Your task to perform on an android device: open app "Facebook Lite" (install if not already installed), go to login, and select forgot password Image 0: 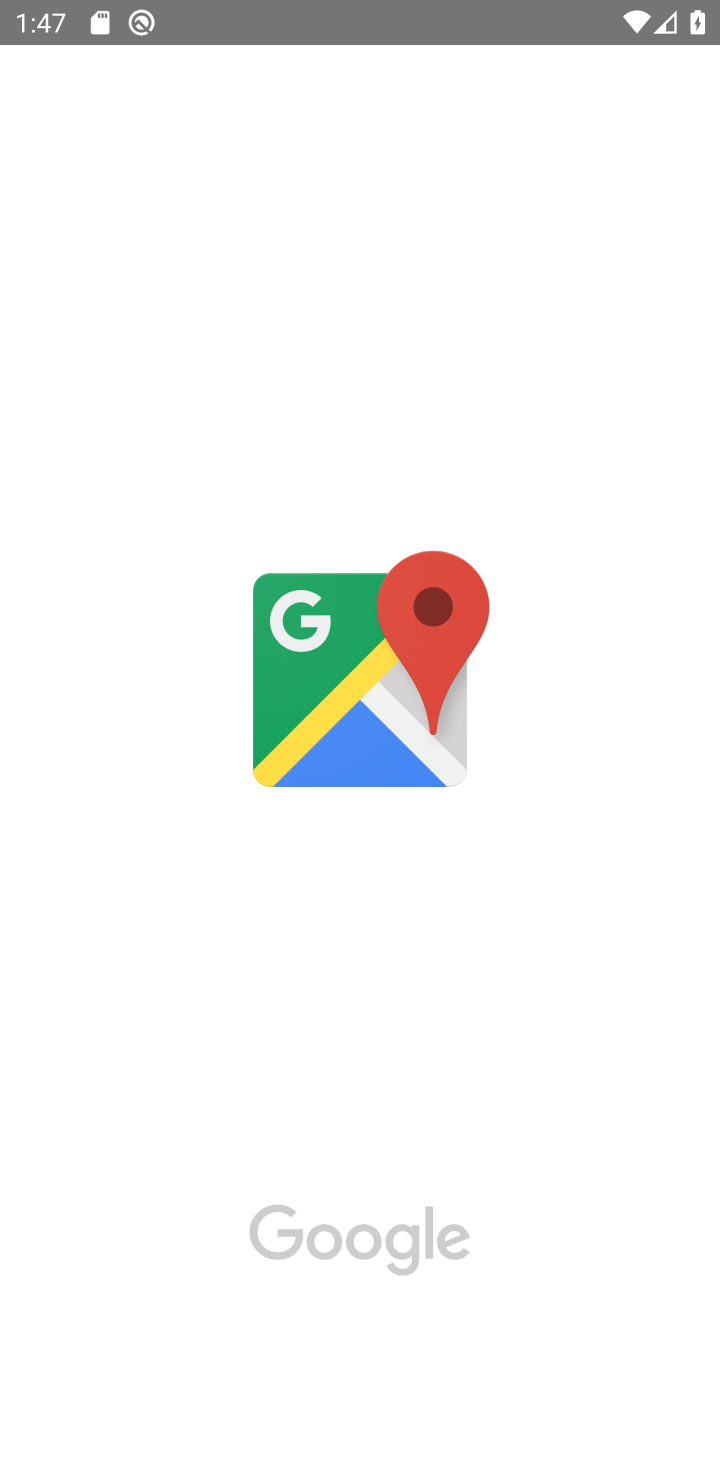
Step 0: drag from (321, 1077) to (371, 459)
Your task to perform on an android device: open app "Facebook Lite" (install if not already installed), go to login, and select forgot password Image 1: 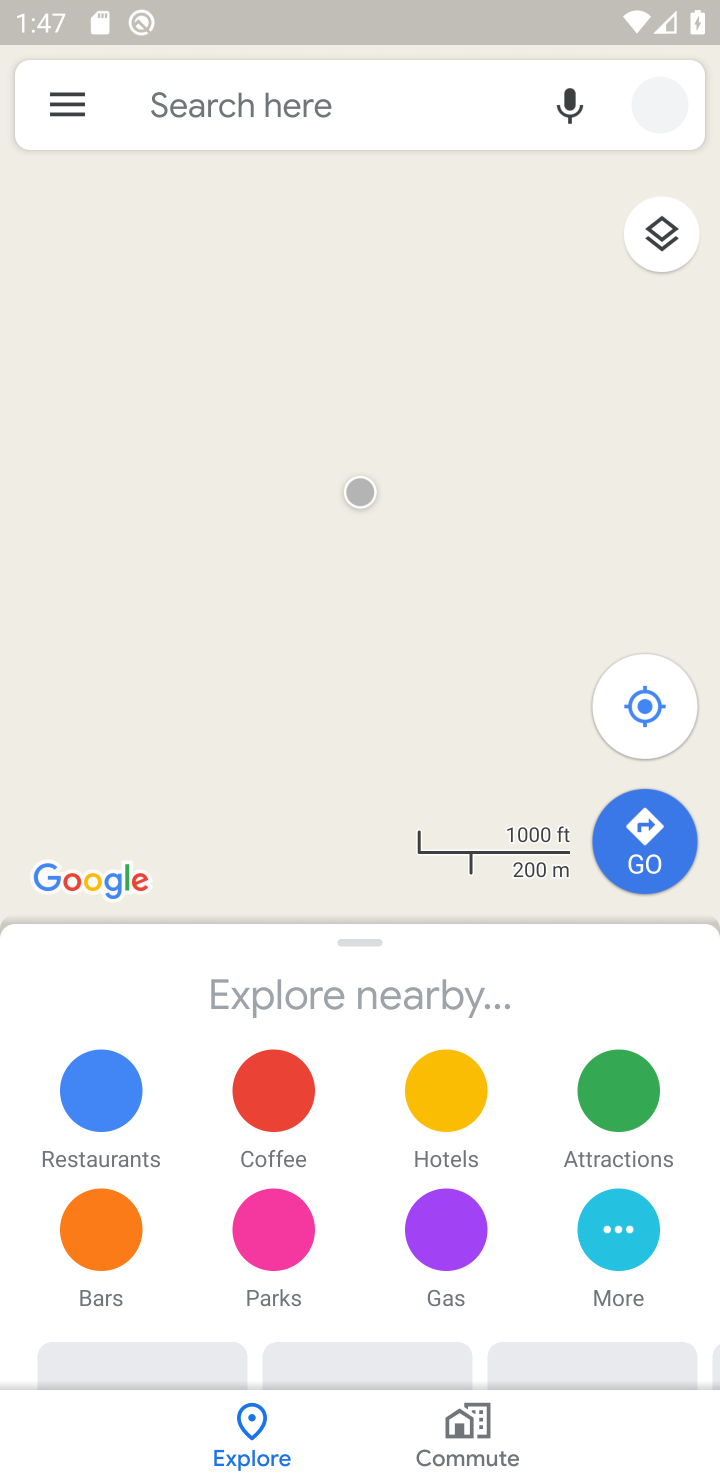
Step 1: press home button
Your task to perform on an android device: open app "Facebook Lite" (install if not already installed), go to login, and select forgot password Image 2: 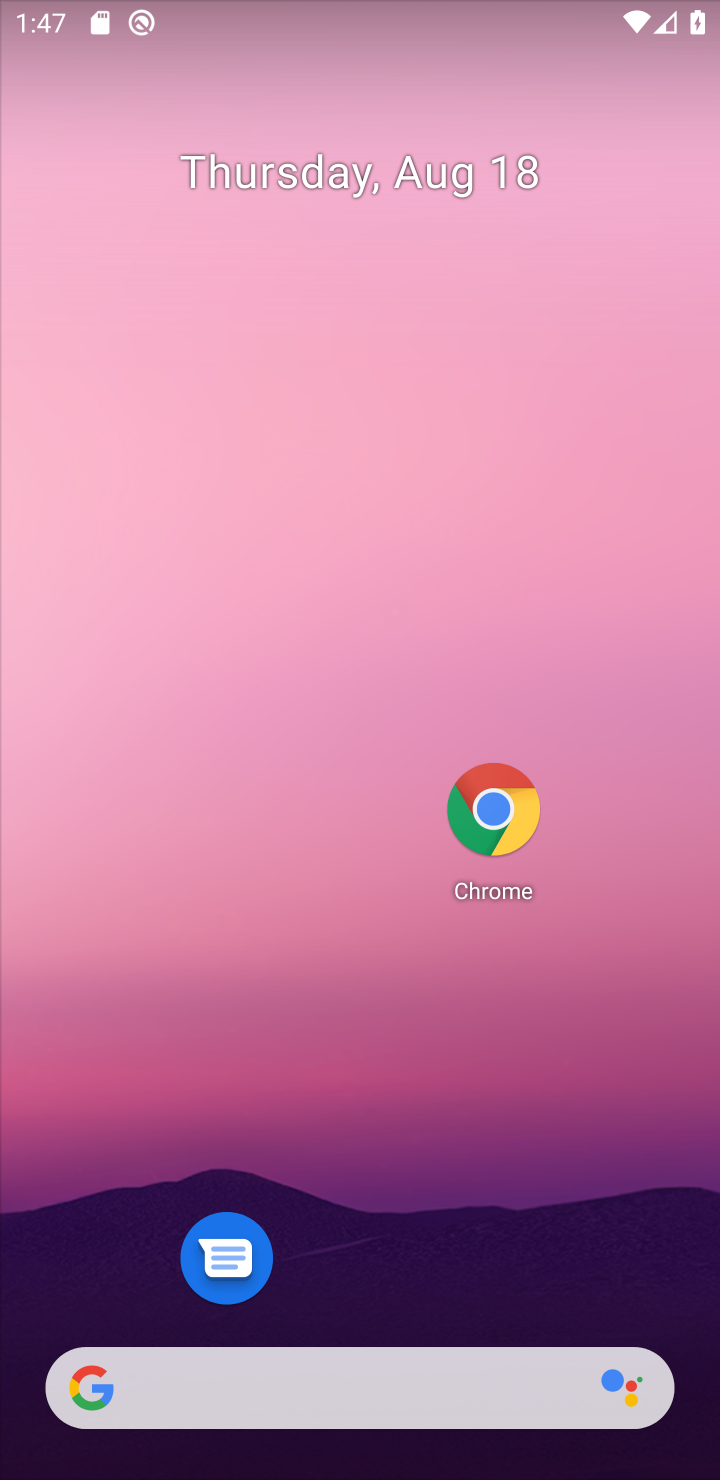
Step 2: drag from (376, 1276) to (307, 490)
Your task to perform on an android device: open app "Facebook Lite" (install if not already installed), go to login, and select forgot password Image 3: 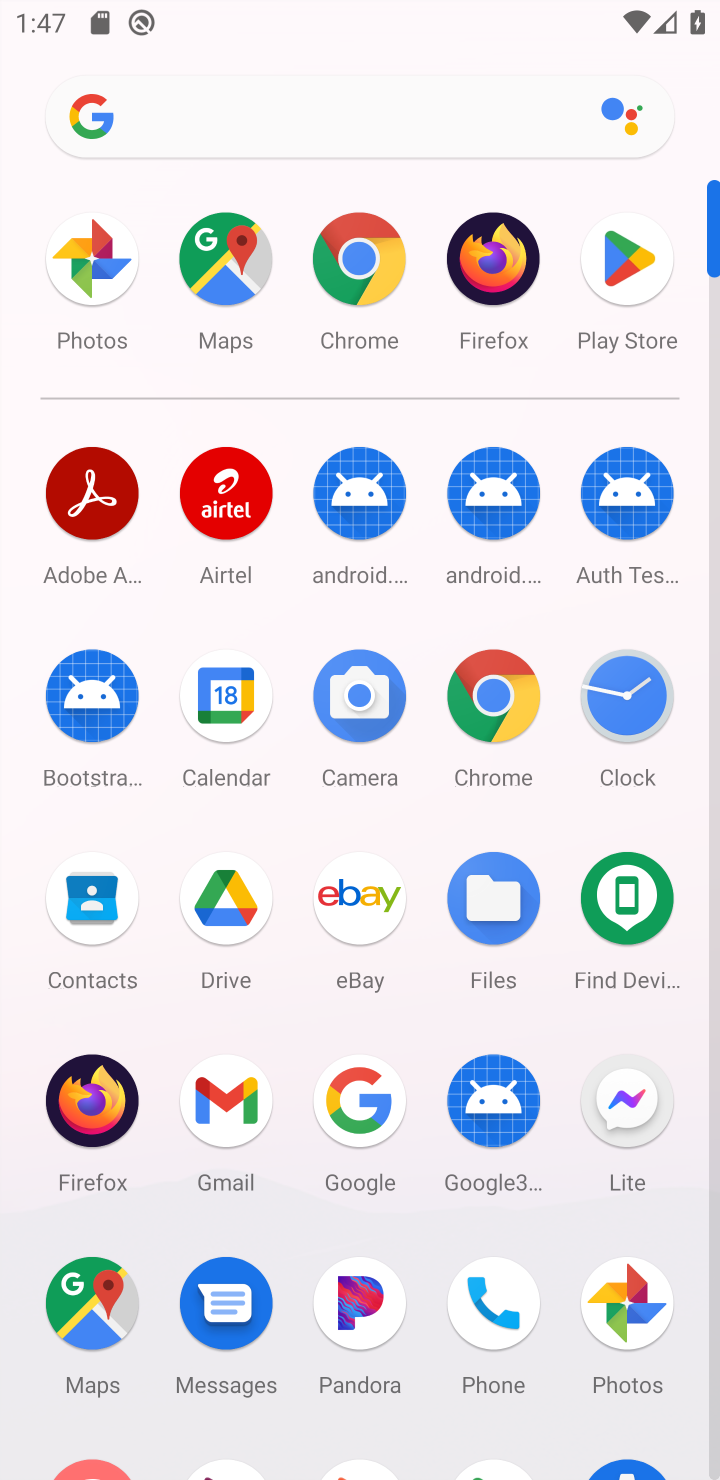
Step 3: click (621, 262)
Your task to perform on an android device: open app "Facebook Lite" (install if not already installed), go to login, and select forgot password Image 4: 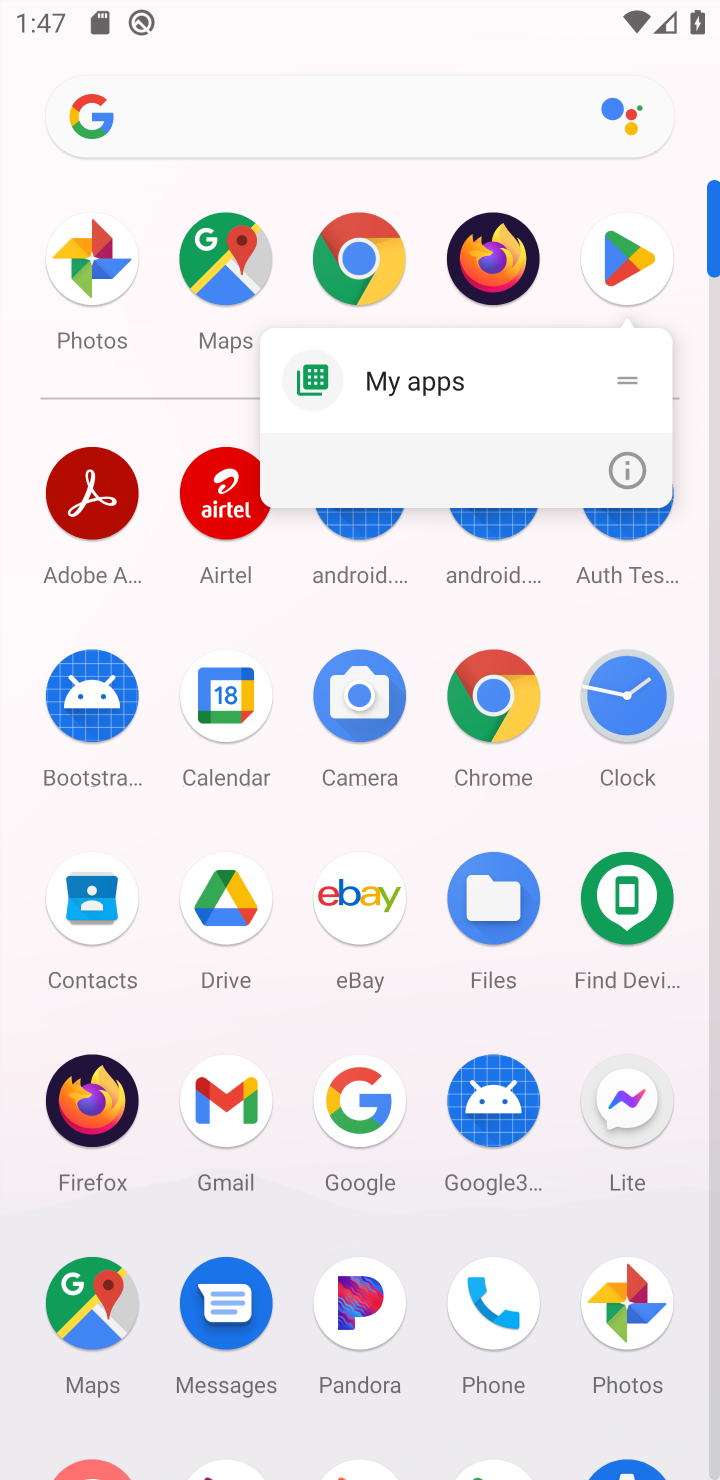
Step 4: click (621, 262)
Your task to perform on an android device: open app "Facebook Lite" (install if not already installed), go to login, and select forgot password Image 5: 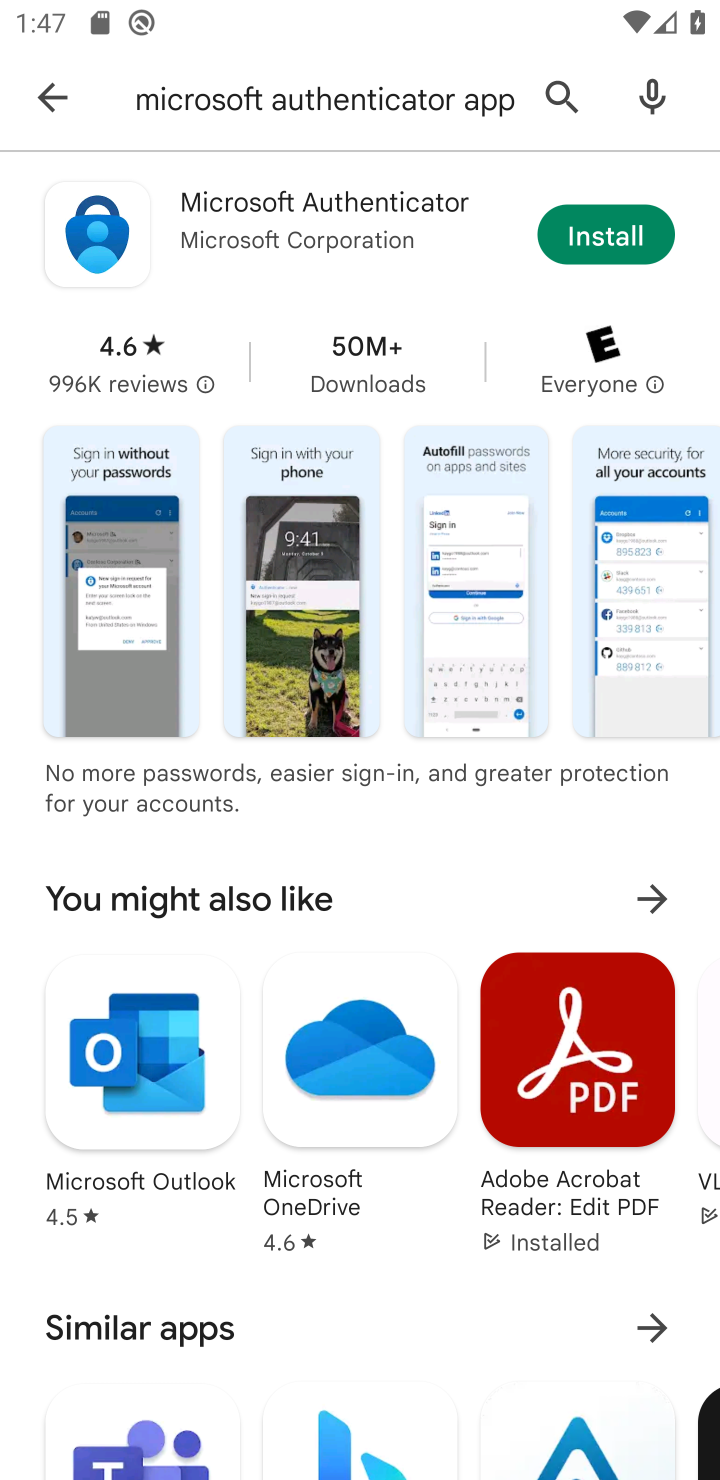
Step 5: click (36, 73)
Your task to perform on an android device: open app "Facebook Lite" (install if not already installed), go to login, and select forgot password Image 6: 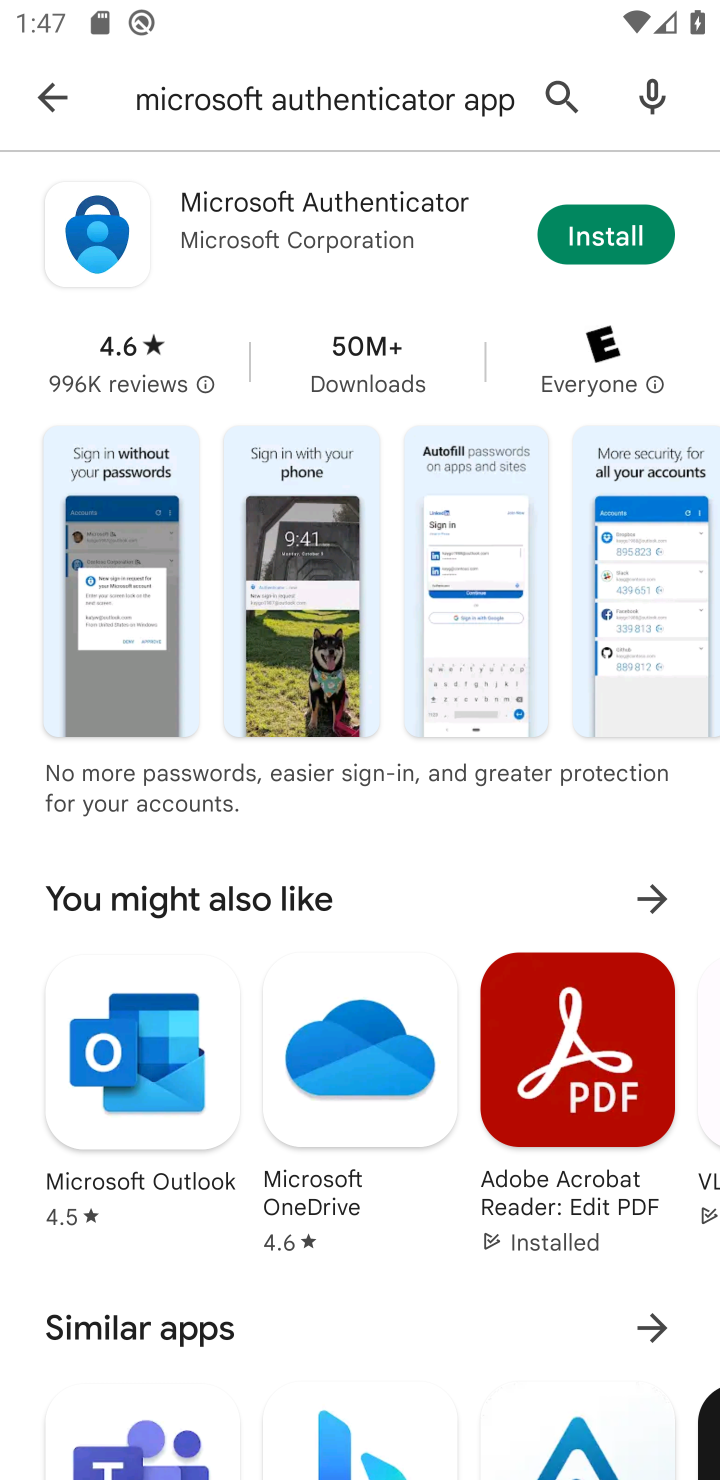
Step 6: click (52, 100)
Your task to perform on an android device: open app "Facebook Lite" (install if not already installed), go to login, and select forgot password Image 7: 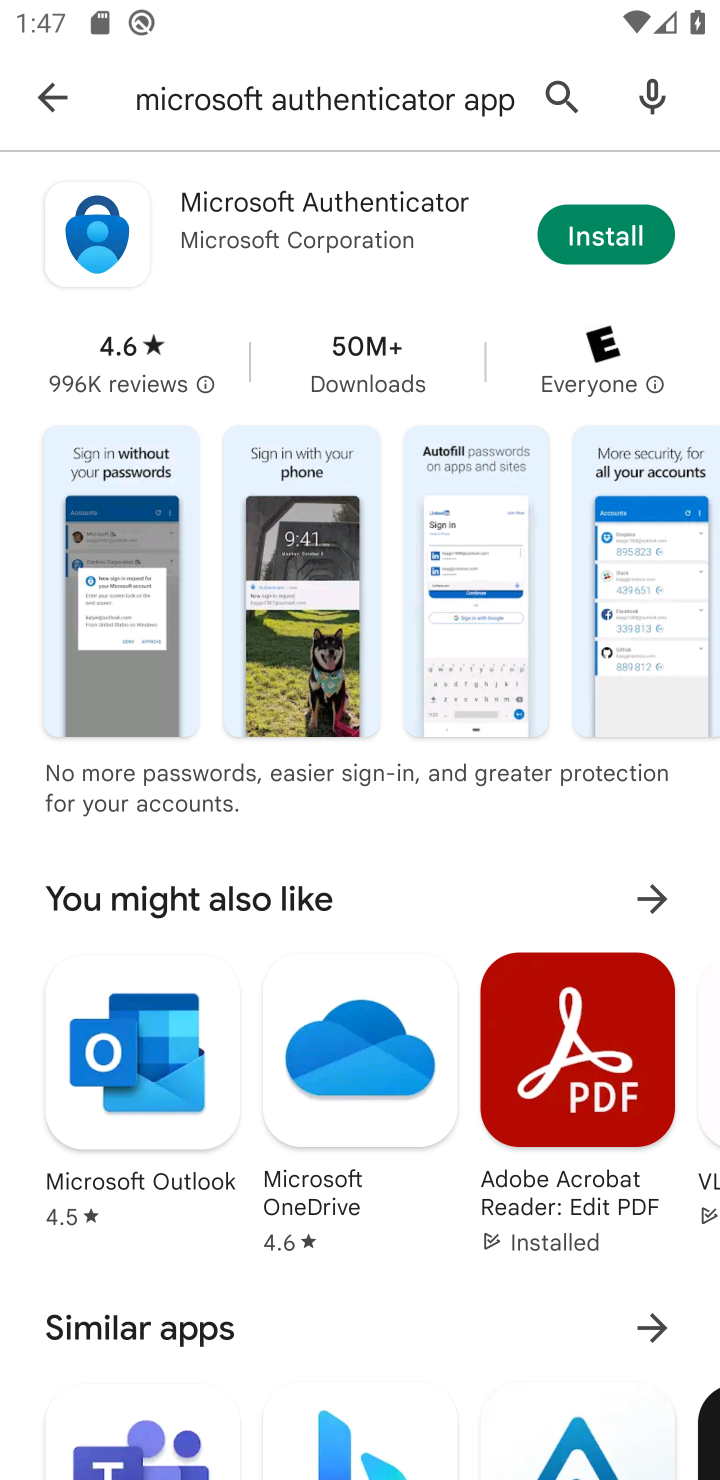
Step 7: click (548, 83)
Your task to perform on an android device: open app "Facebook Lite" (install if not already installed), go to login, and select forgot password Image 8: 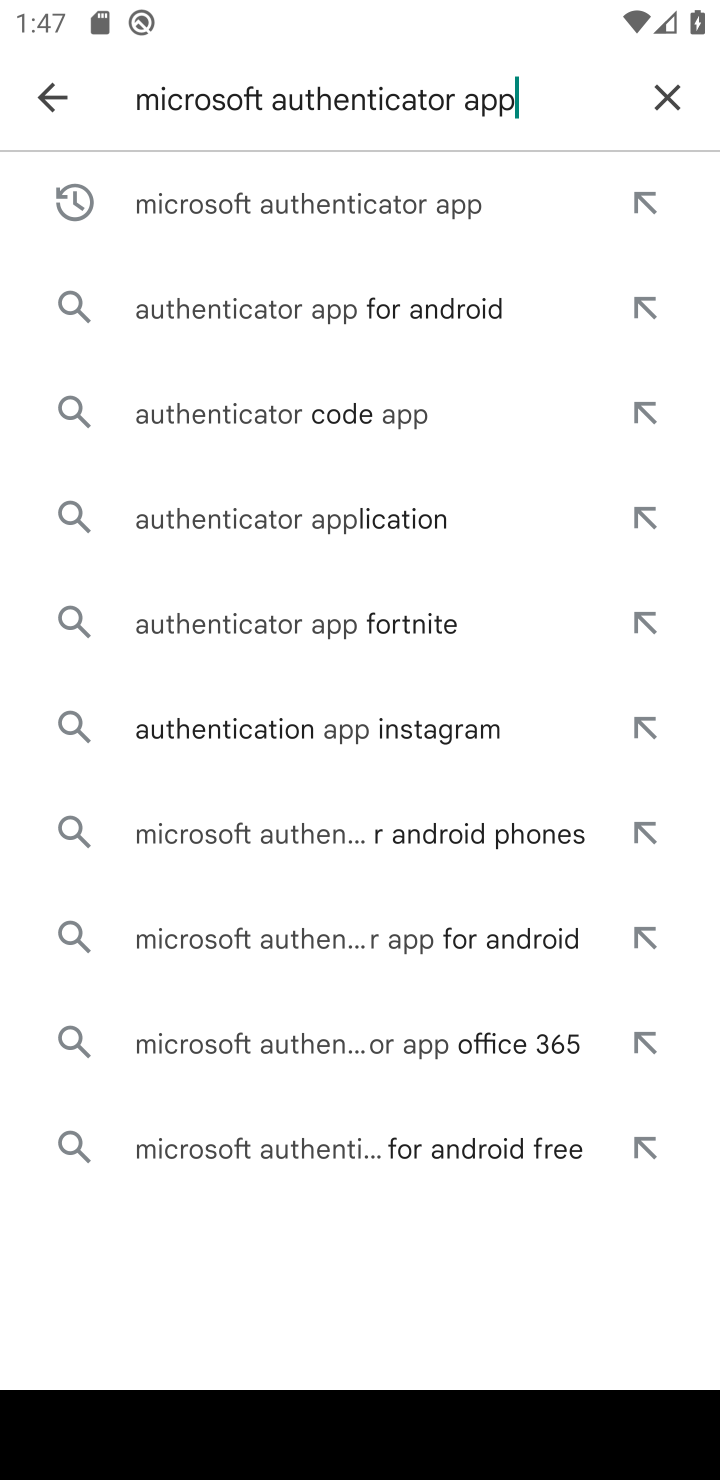
Step 8: click (655, 94)
Your task to perform on an android device: open app "Facebook Lite" (install if not already installed), go to login, and select forgot password Image 9: 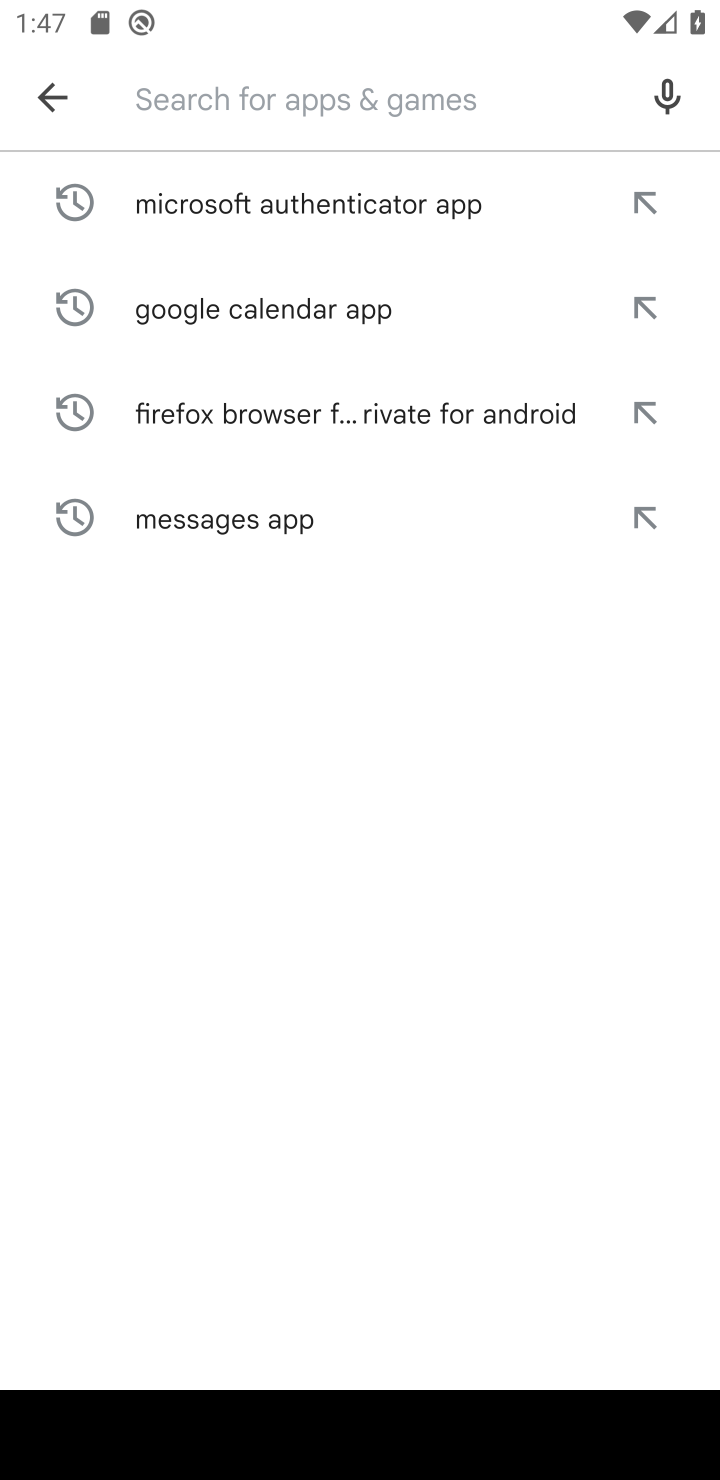
Step 9: click (296, 96)
Your task to perform on an android device: open app "Facebook Lite" (install if not already installed), go to login, and select forgot password Image 10: 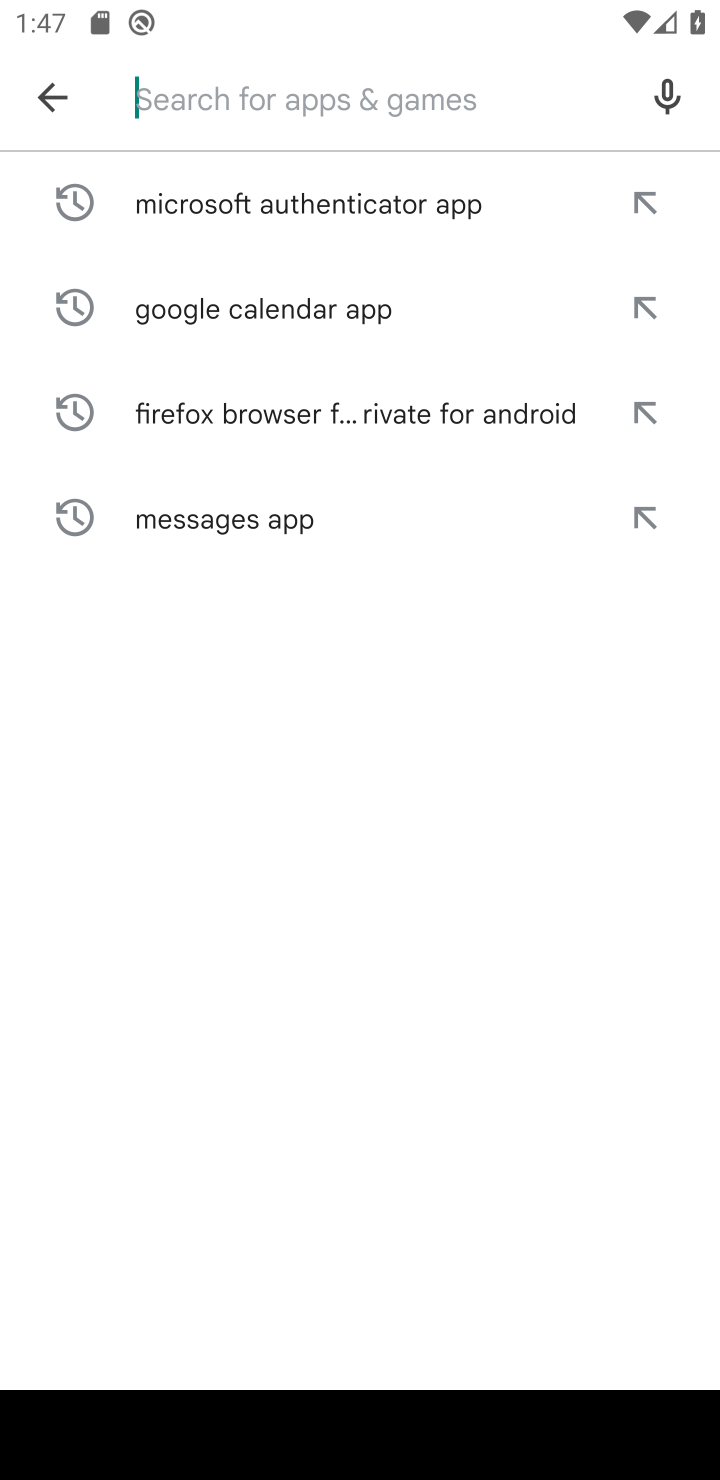
Step 10: click (423, 101)
Your task to perform on an android device: open app "Facebook Lite" (install if not already installed), go to login, and select forgot password Image 11: 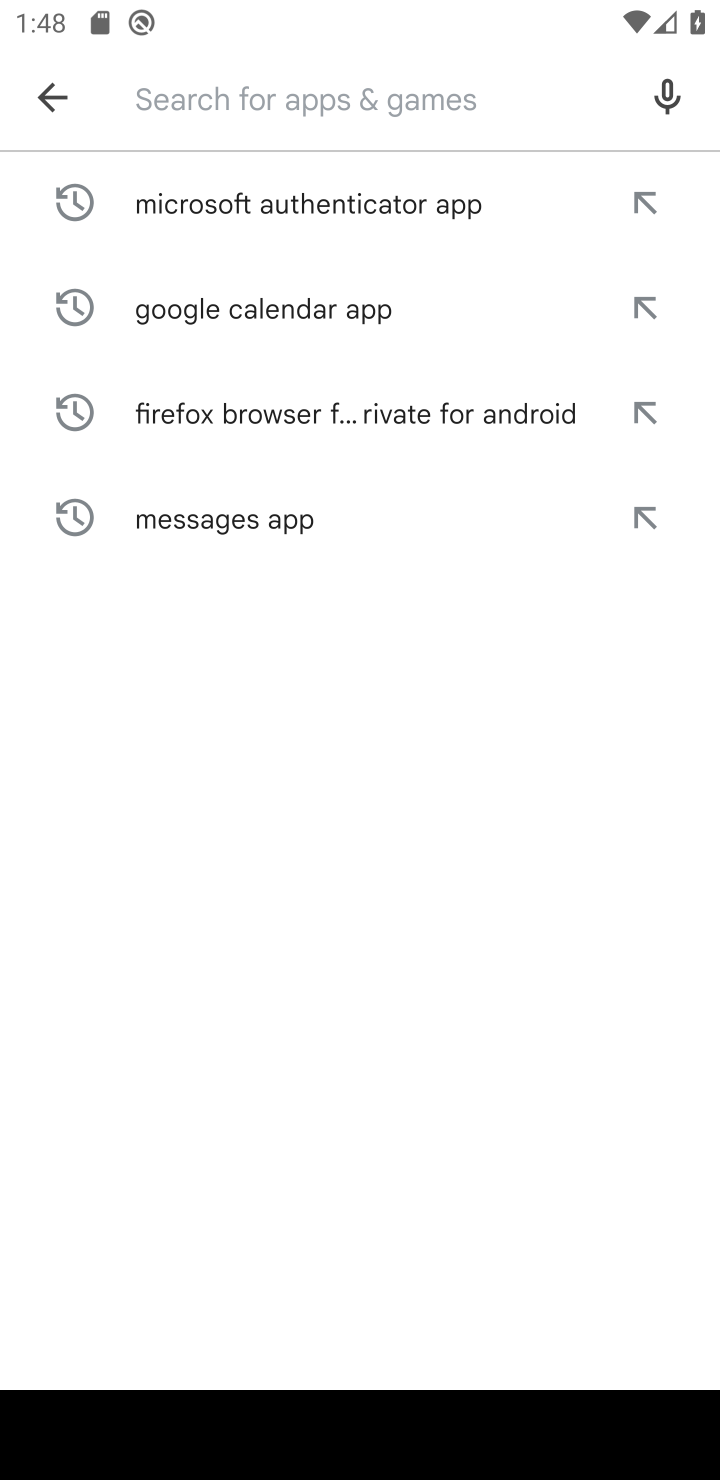
Step 11: type "Facebook Lite "
Your task to perform on an android device: open app "Facebook Lite" (install if not already installed), go to login, and select forgot password Image 12: 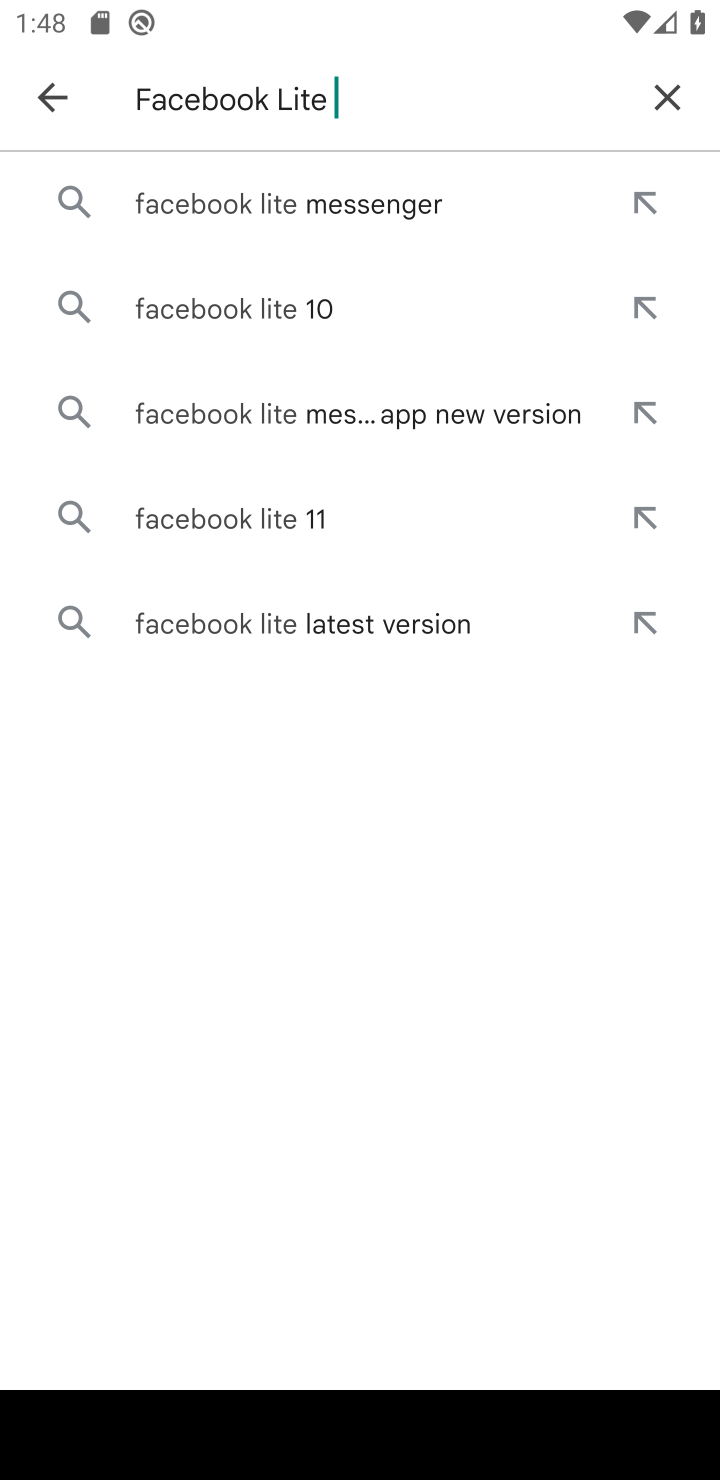
Step 12: click (279, 331)
Your task to perform on an android device: open app "Facebook Lite" (install if not already installed), go to login, and select forgot password Image 13: 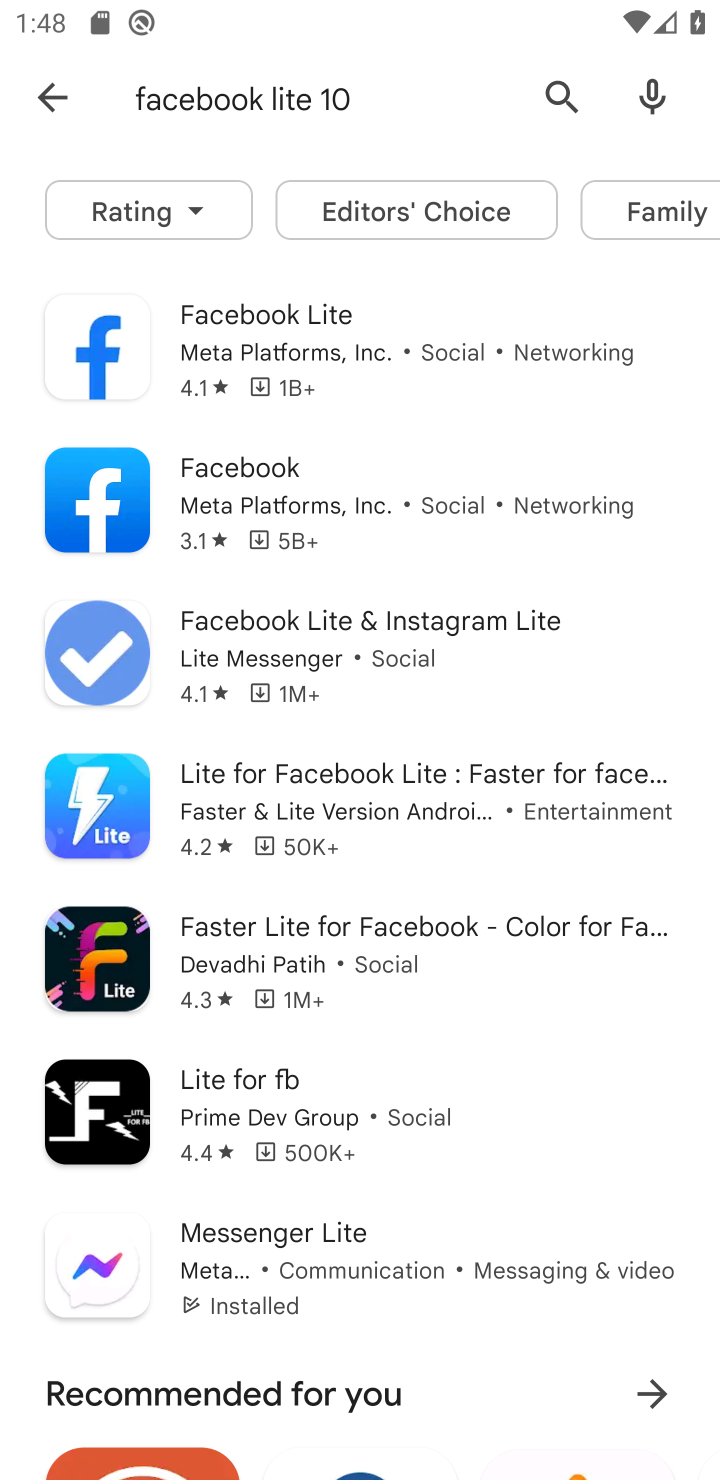
Step 13: click (311, 323)
Your task to perform on an android device: open app "Facebook Lite" (install if not already installed), go to login, and select forgot password Image 14: 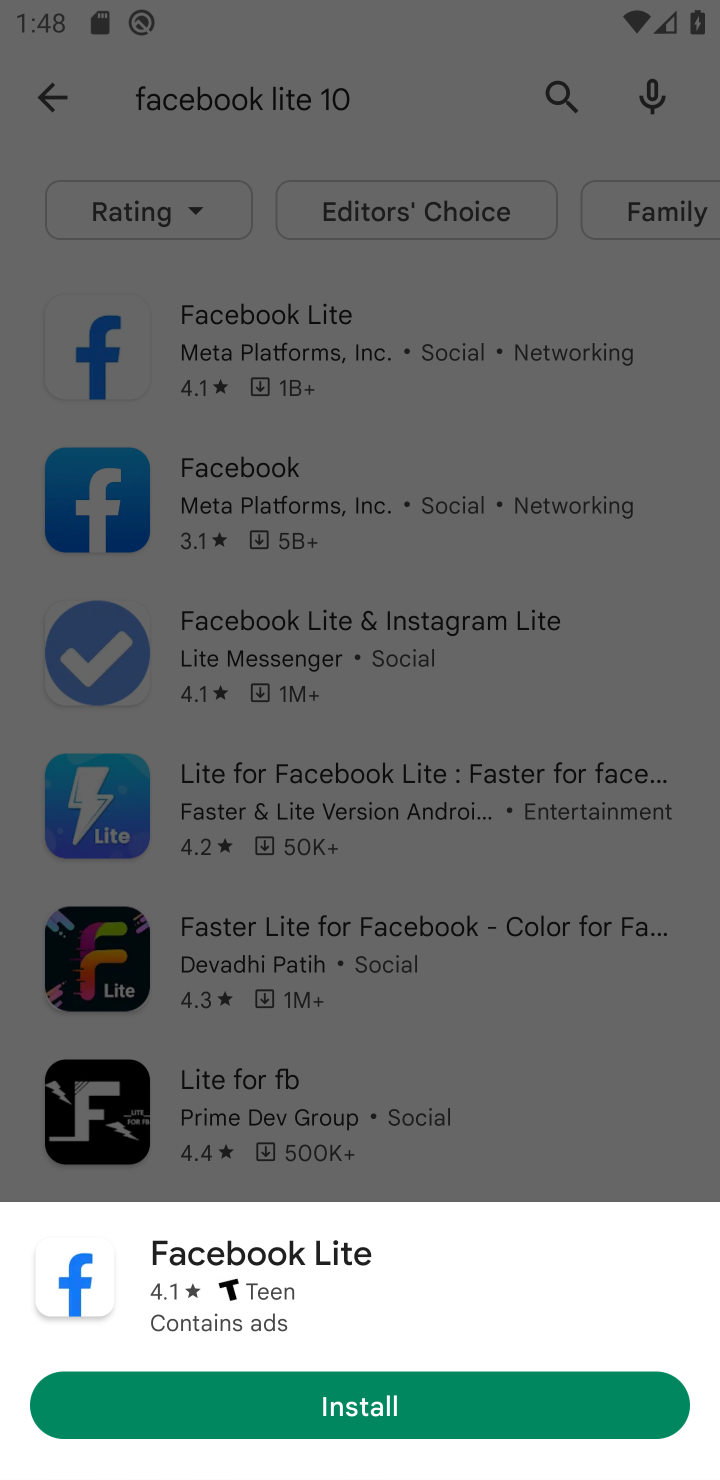
Step 14: click (472, 1406)
Your task to perform on an android device: open app "Facebook Lite" (install if not already installed), go to login, and select forgot password Image 15: 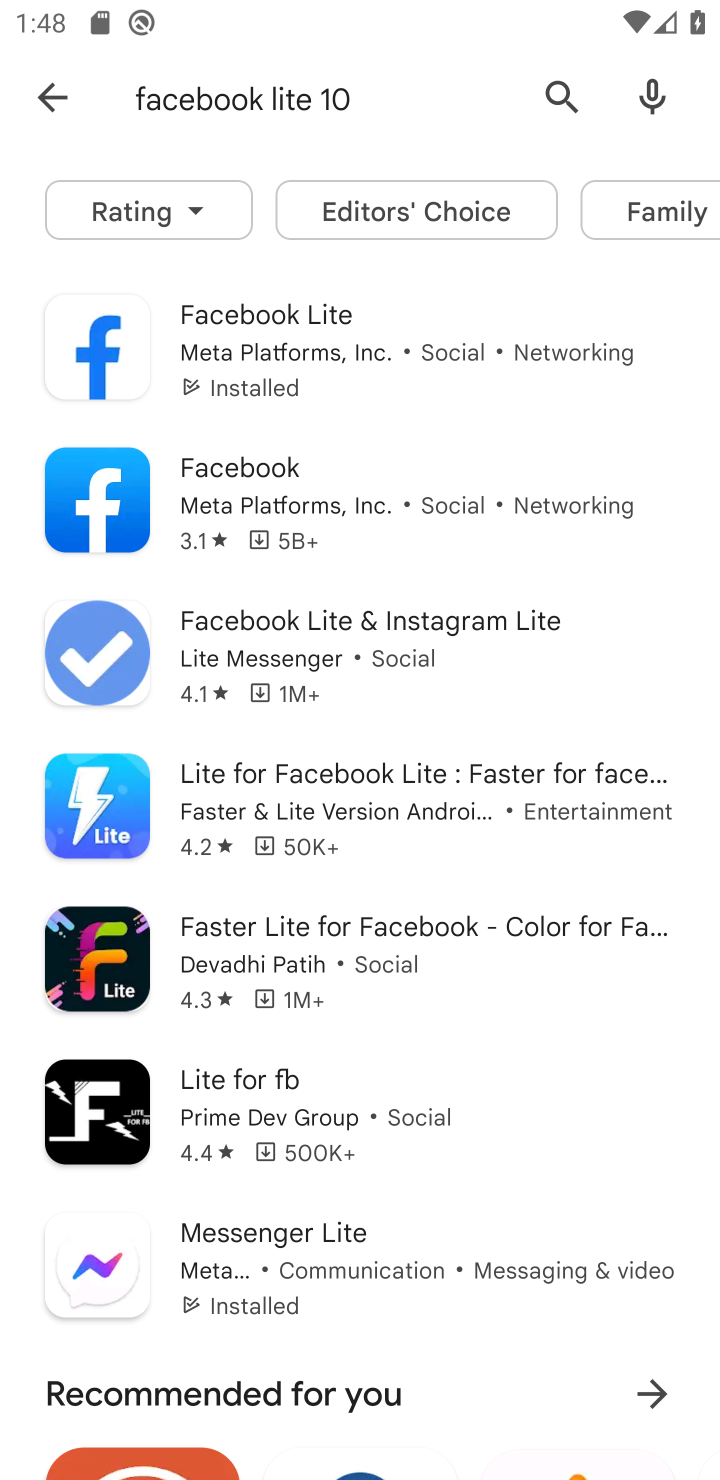
Step 15: click (343, 348)
Your task to perform on an android device: open app "Facebook Lite" (install if not already installed), go to login, and select forgot password Image 16: 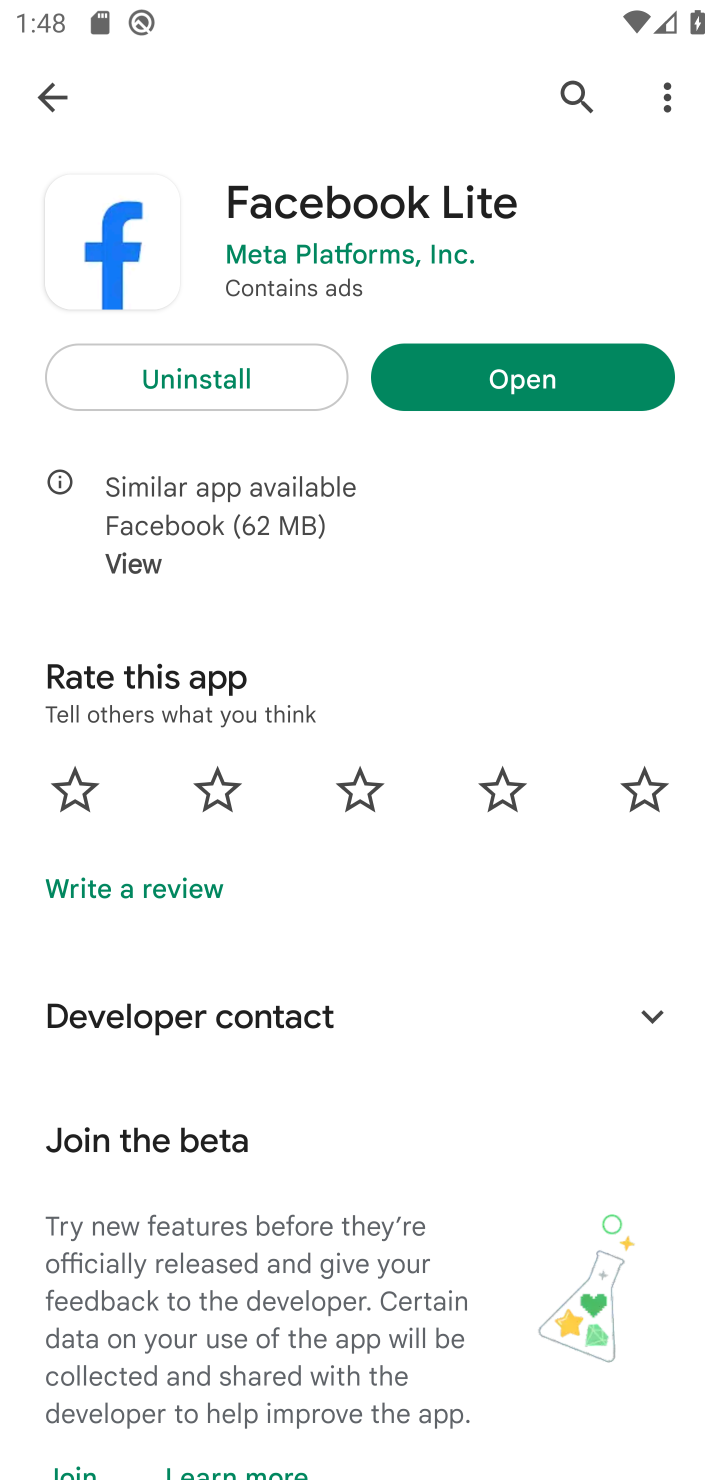
Step 16: click (537, 370)
Your task to perform on an android device: open app "Facebook Lite" (install if not already installed), go to login, and select forgot password Image 17: 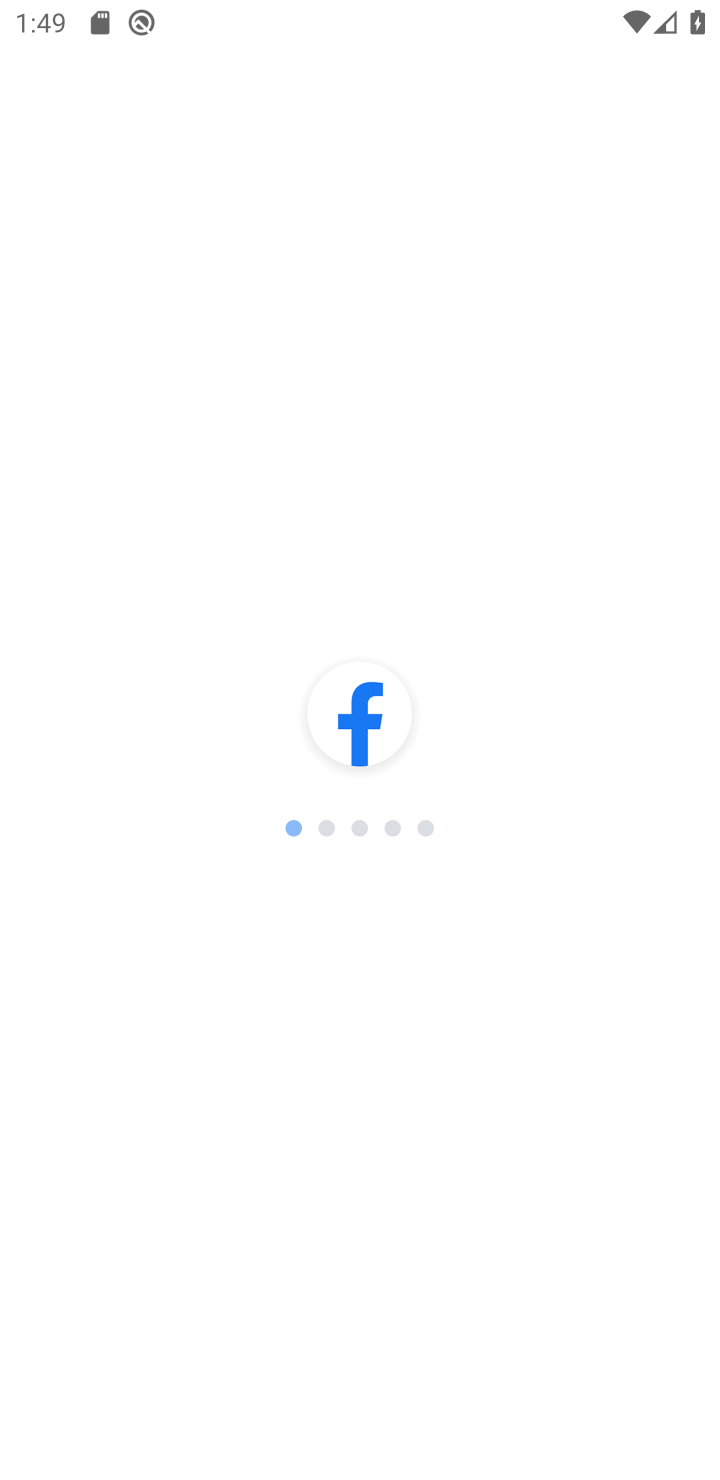
Step 17: task complete